Your task to perform on an android device: Go to internet settings Image 0: 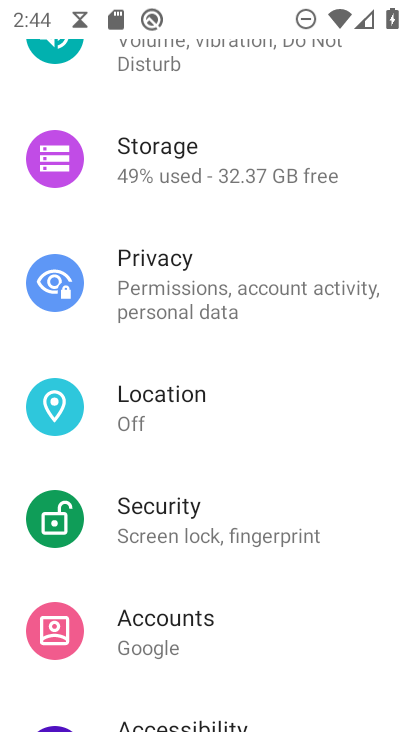
Step 0: drag from (257, 297) to (227, 616)
Your task to perform on an android device: Go to internet settings Image 1: 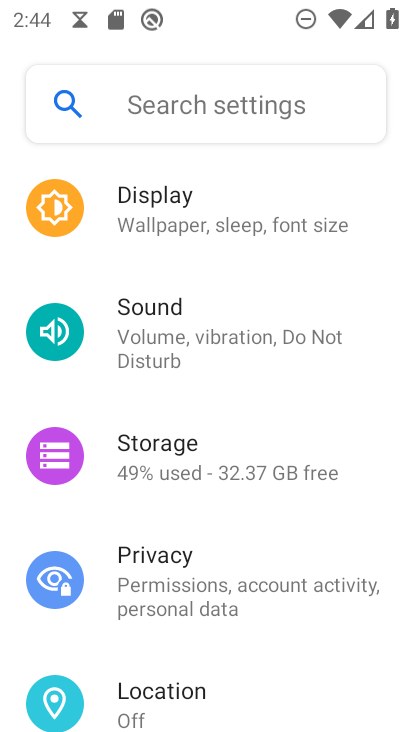
Step 1: drag from (241, 273) to (207, 657)
Your task to perform on an android device: Go to internet settings Image 2: 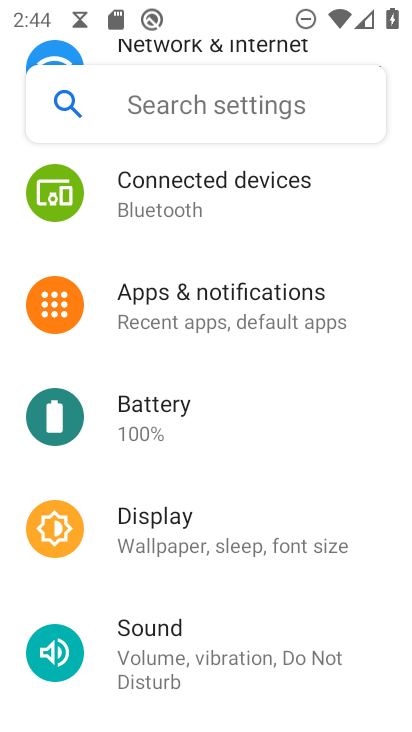
Step 2: drag from (191, 233) to (217, 650)
Your task to perform on an android device: Go to internet settings Image 3: 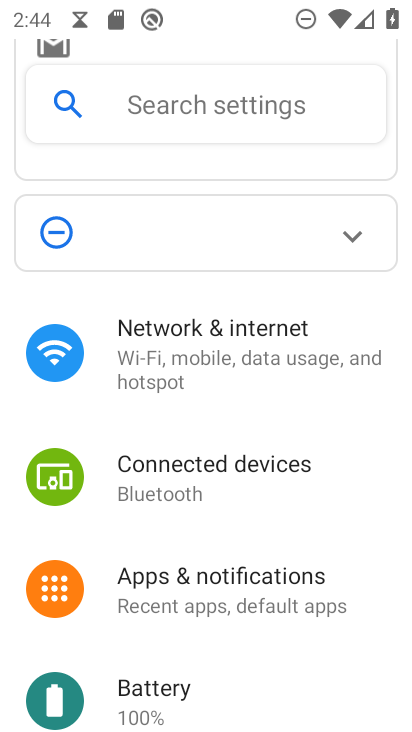
Step 3: click (198, 353)
Your task to perform on an android device: Go to internet settings Image 4: 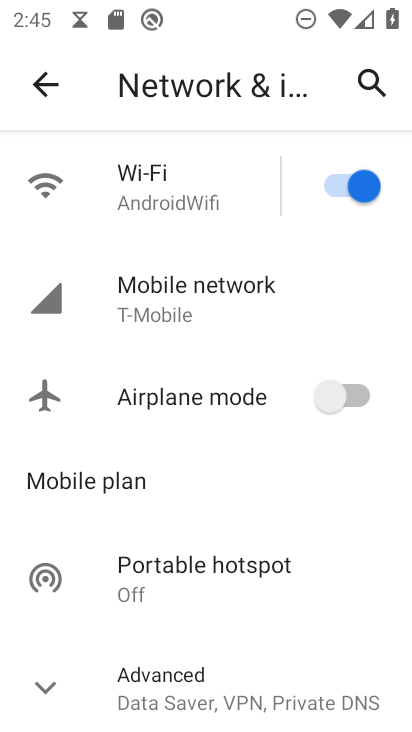
Step 4: click (162, 319)
Your task to perform on an android device: Go to internet settings Image 5: 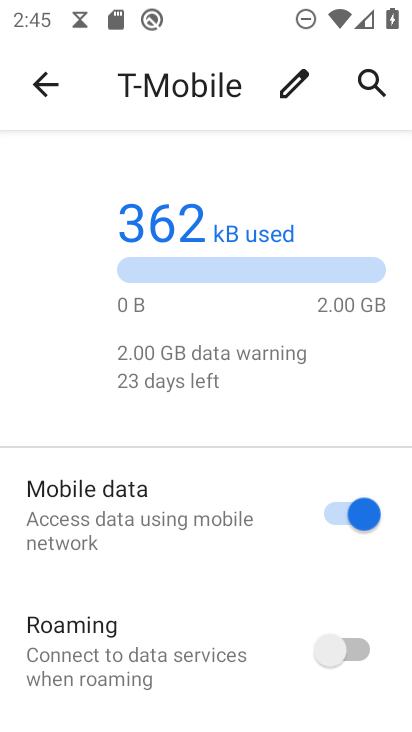
Step 5: task complete